Your task to perform on an android device: Add jbl charge 4 to the cart on ebay.com, then select checkout. Image 0: 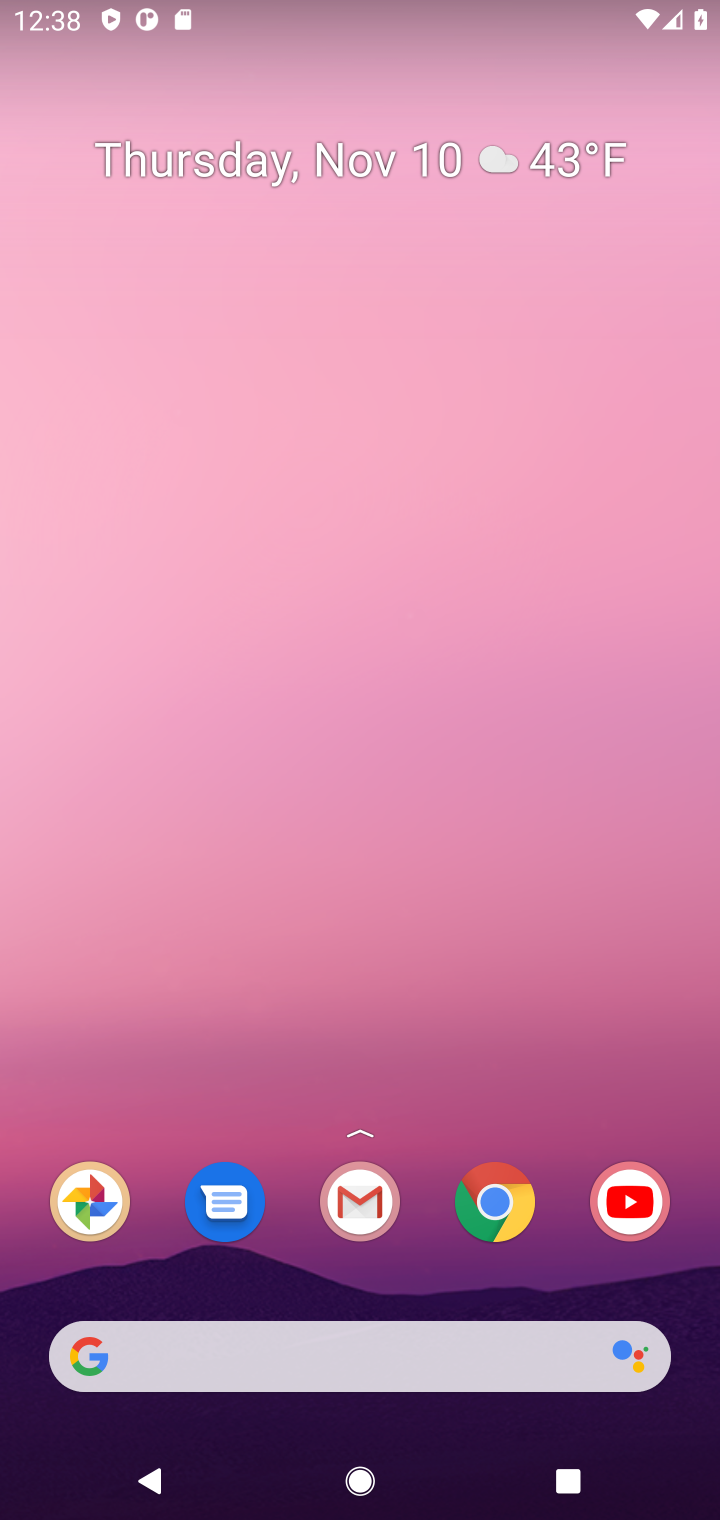
Step 0: click (516, 1219)
Your task to perform on an android device: Add jbl charge 4 to the cart on ebay.com, then select checkout. Image 1: 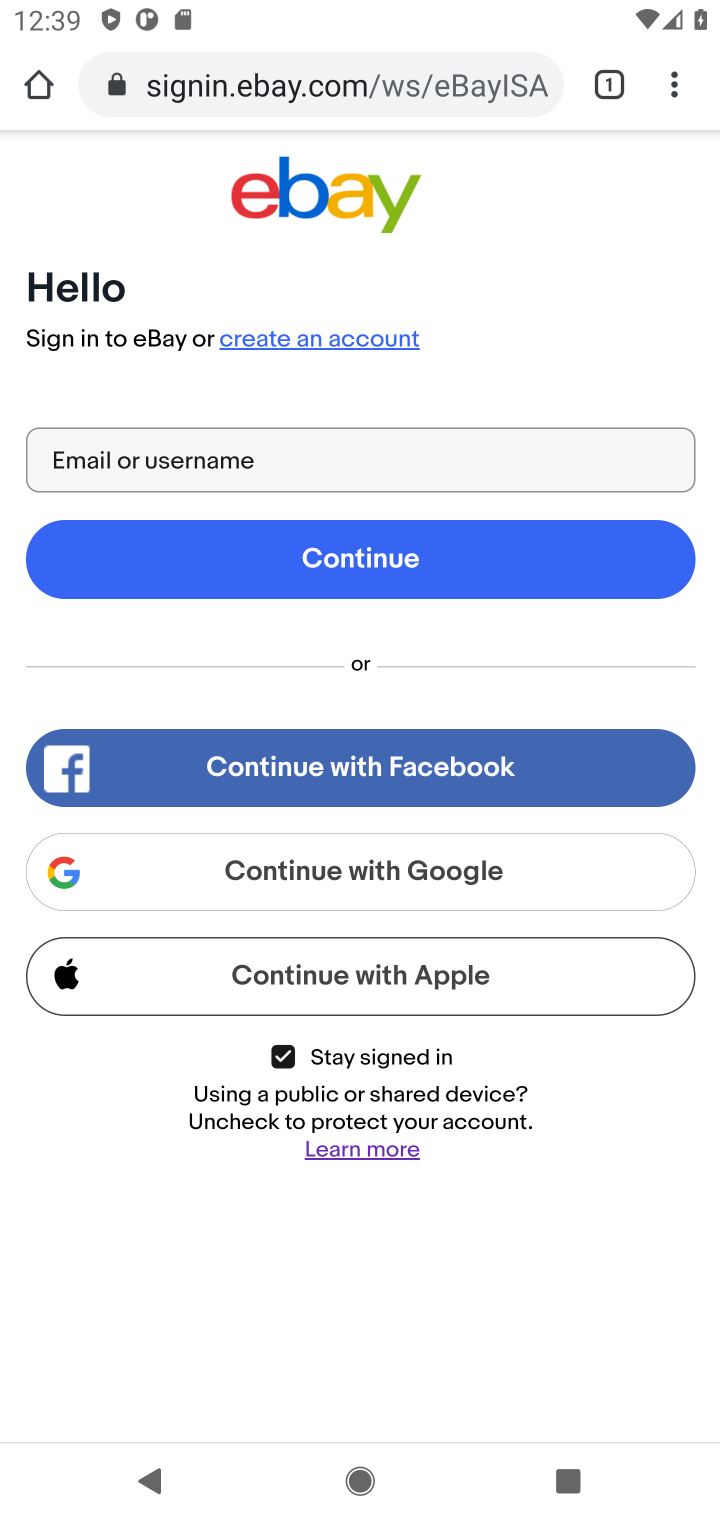
Step 1: press back button
Your task to perform on an android device: Add jbl charge 4 to the cart on ebay.com, then select checkout. Image 2: 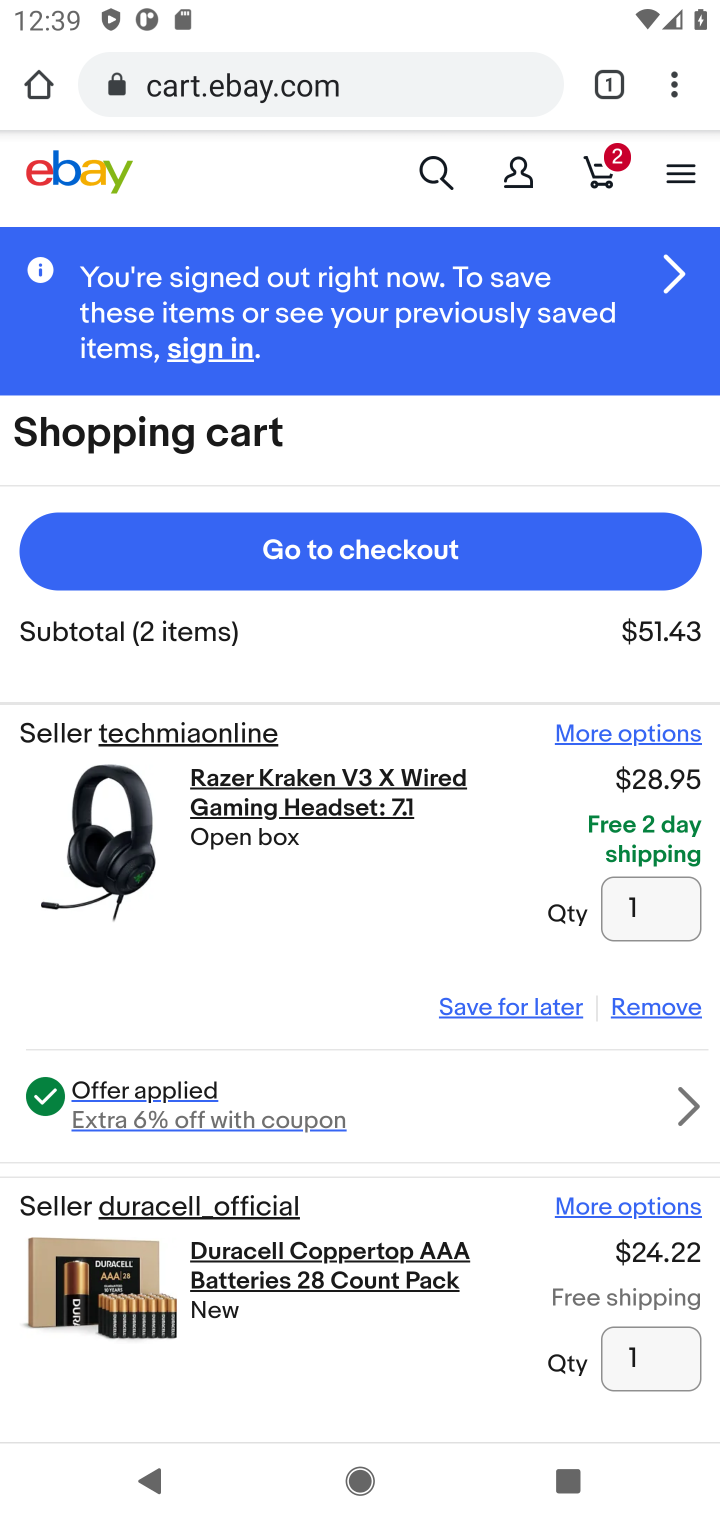
Step 2: click (443, 166)
Your task to perform on an android device: Add jbl charge 4 to the cart on ebay.com, then select checkout. Image 3: 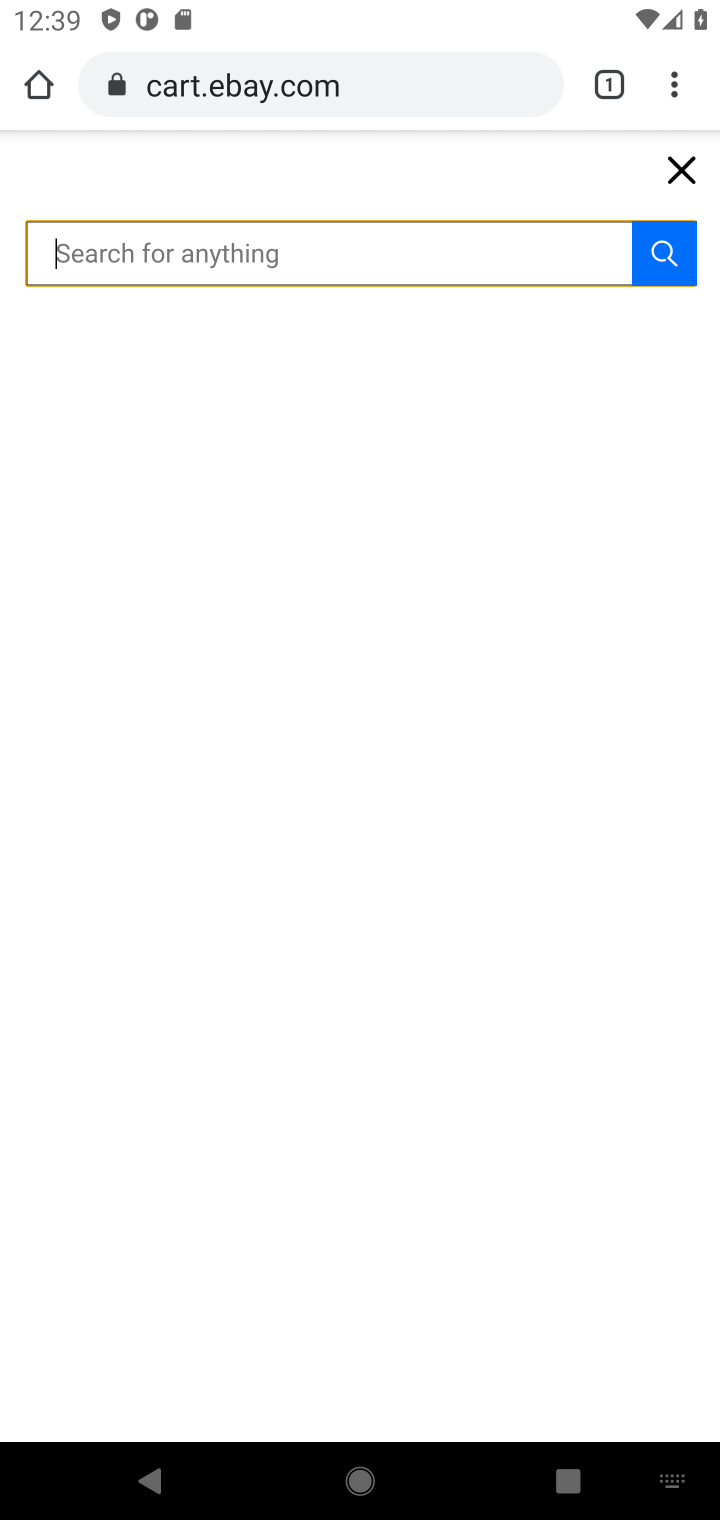
Step 3: type "jbl charge 4"
Your task to perform on an android device: Add jbl charge 4 to the cart on ebay.com, then select checkout. Image 4: 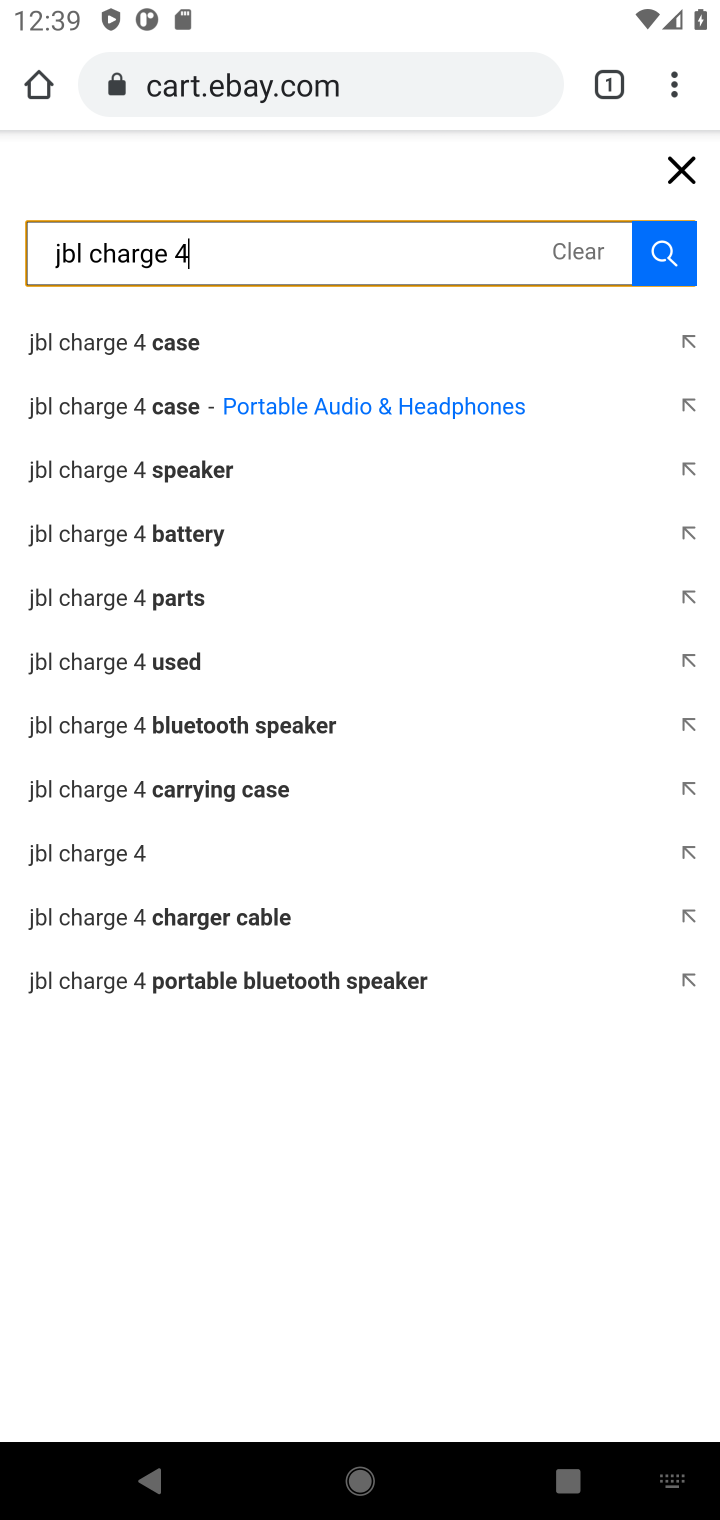
Step 4: click (118, 858)
Your task to perform on an android device: Add jbl charge 4 to the cart on ebay.com, then select checkout. Image 5: 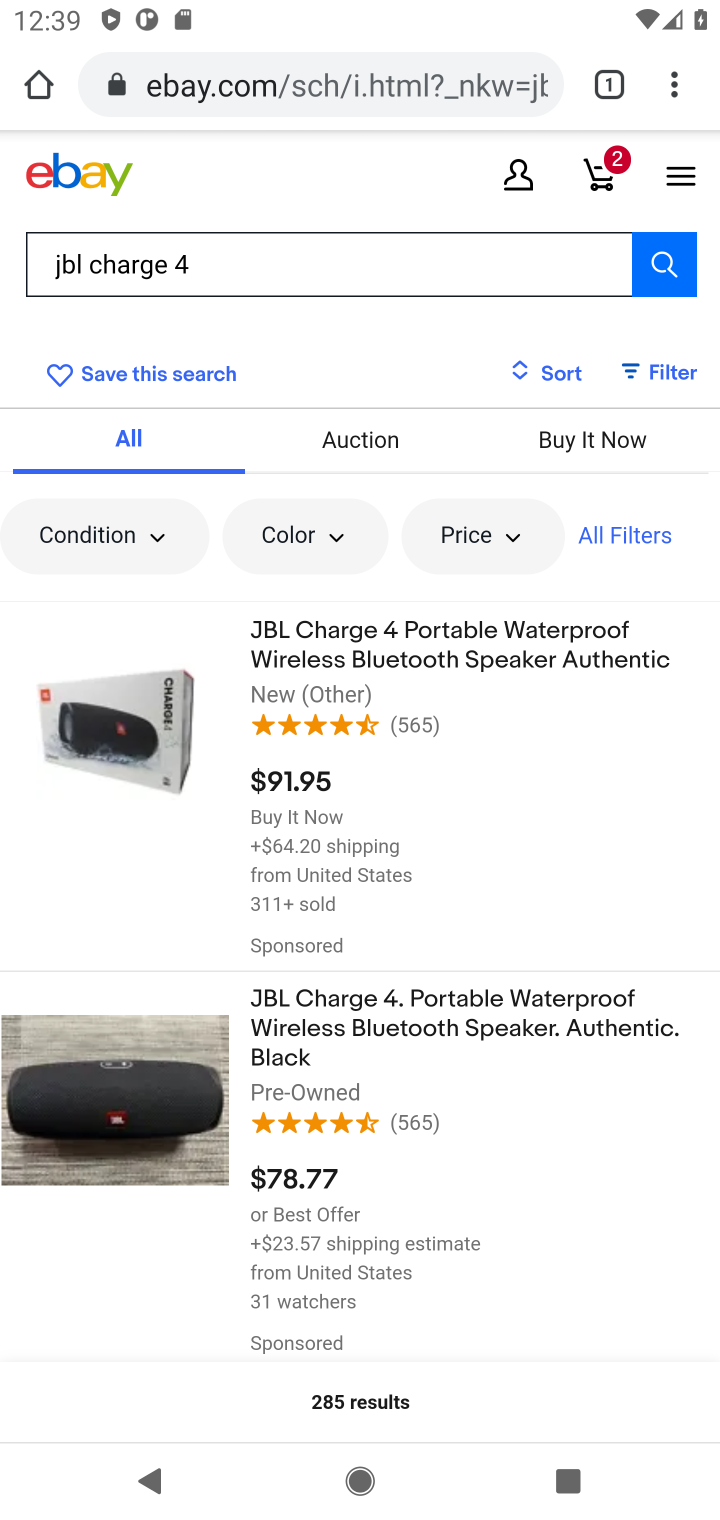
Step 5: click (102, 733)
Your task to perform on an android device: Add jbl charge 4 to the cart on ebay.com, then select checkout. Image 6: 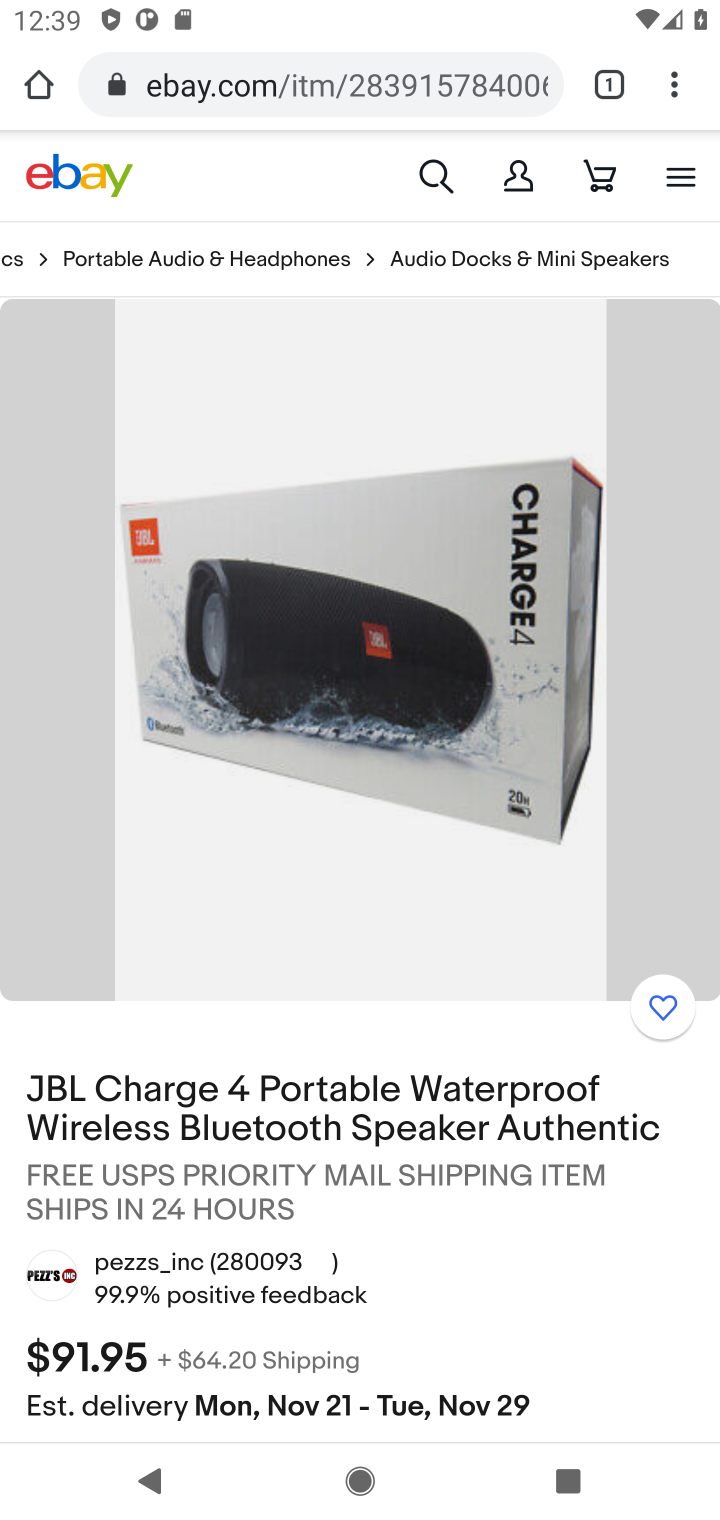
Step 6: drag from (507, 1282) to (475, 610)
Your task to perform on an android device: Add jbl charge 4 to the cart on ebay.com, then select checkout. Image 7: 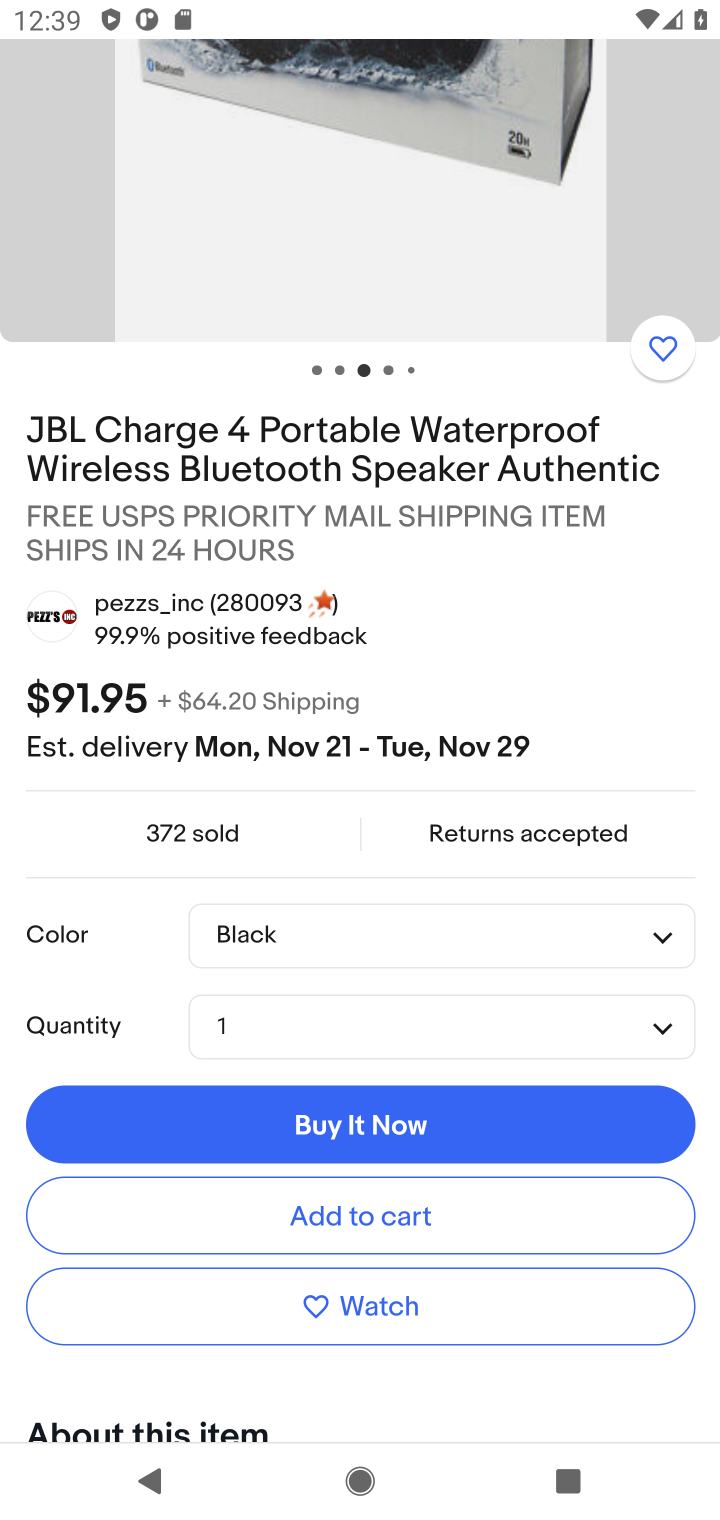
Step 7: drag from (592, 1245) to (608, 771)
Your task to perform on an android device: Add jbl charge 4 to the cart on ebay.com, then select checkout. Image 8: 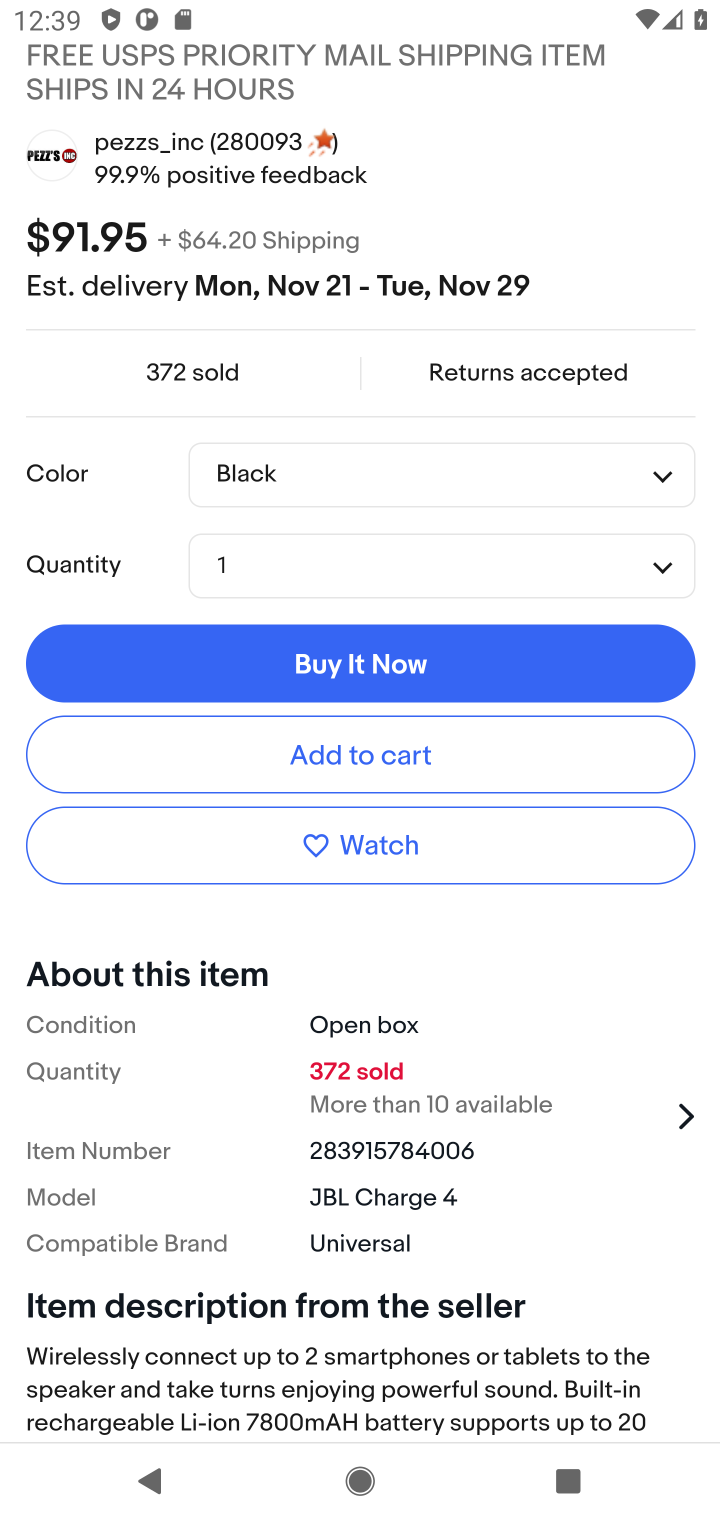
Step 8: click (401, 759)
Your task to perform on an android device: Add jbl charge 4 to the cart on ebay.com, then select checkout. Image 9: 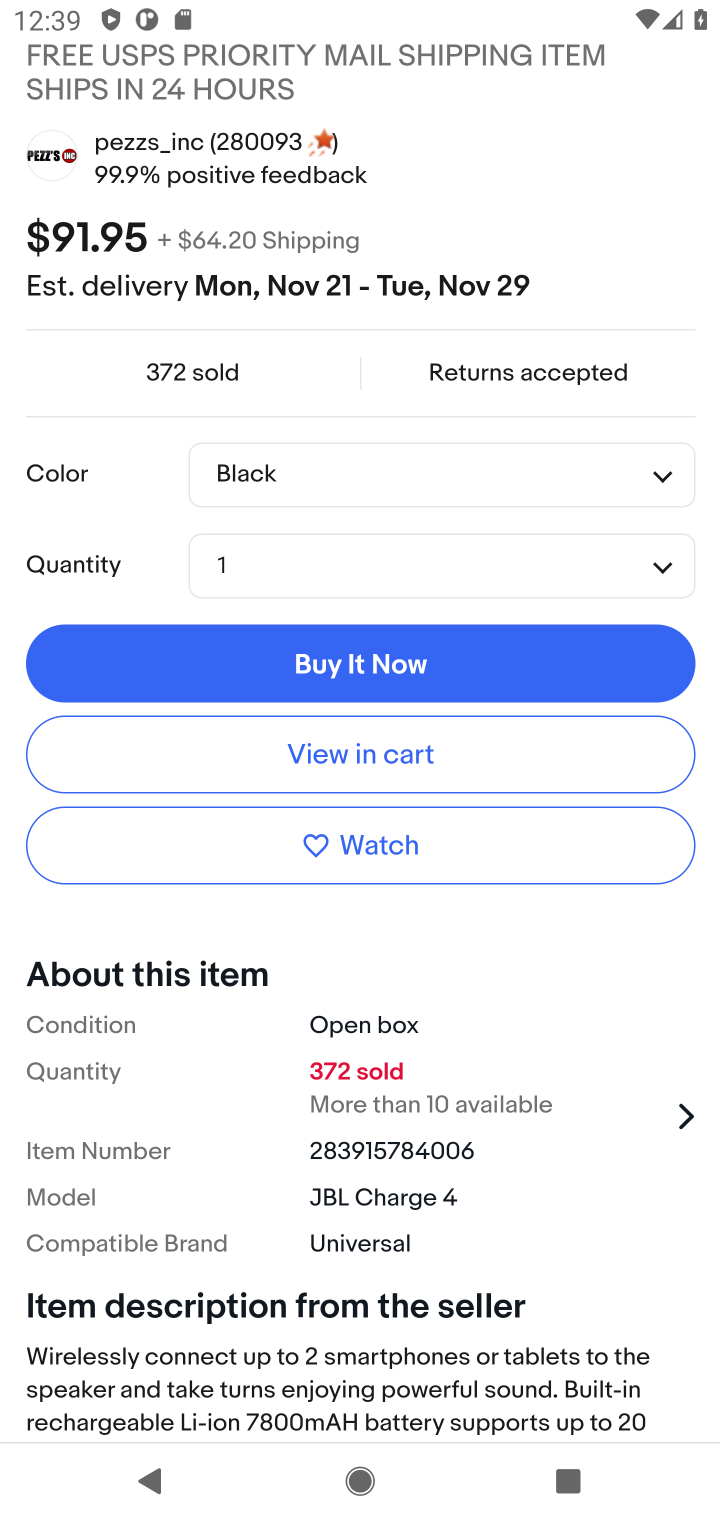
Step 9: click (401, 759)
Your task to perform on an android device: Add jbl charge 4 to the cart on ebay.com, then select checkout. Image 10: 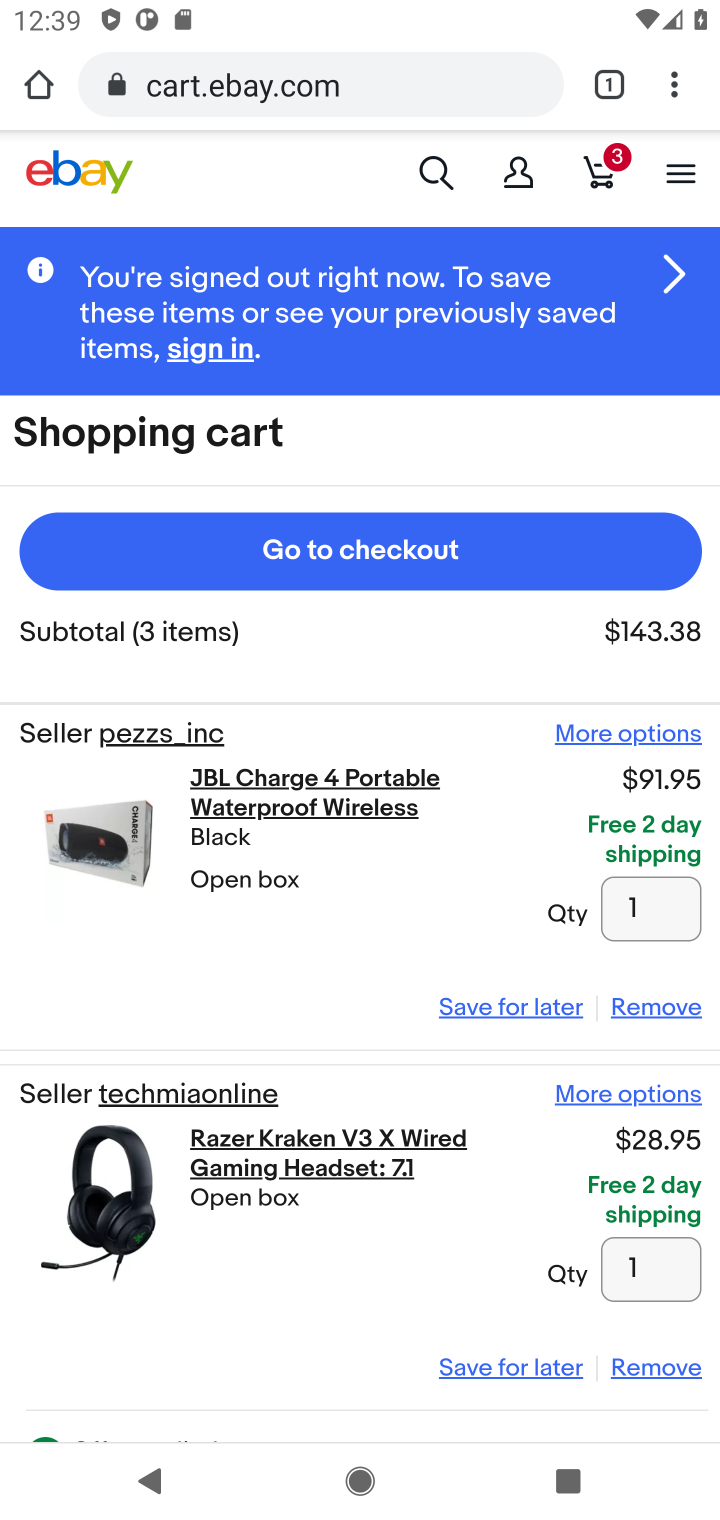
Step 10: click (387, 542)
Your task to perform on an android device: Add jbl charge 4 to the cart on ebay.com, then select checkout. Image 11: 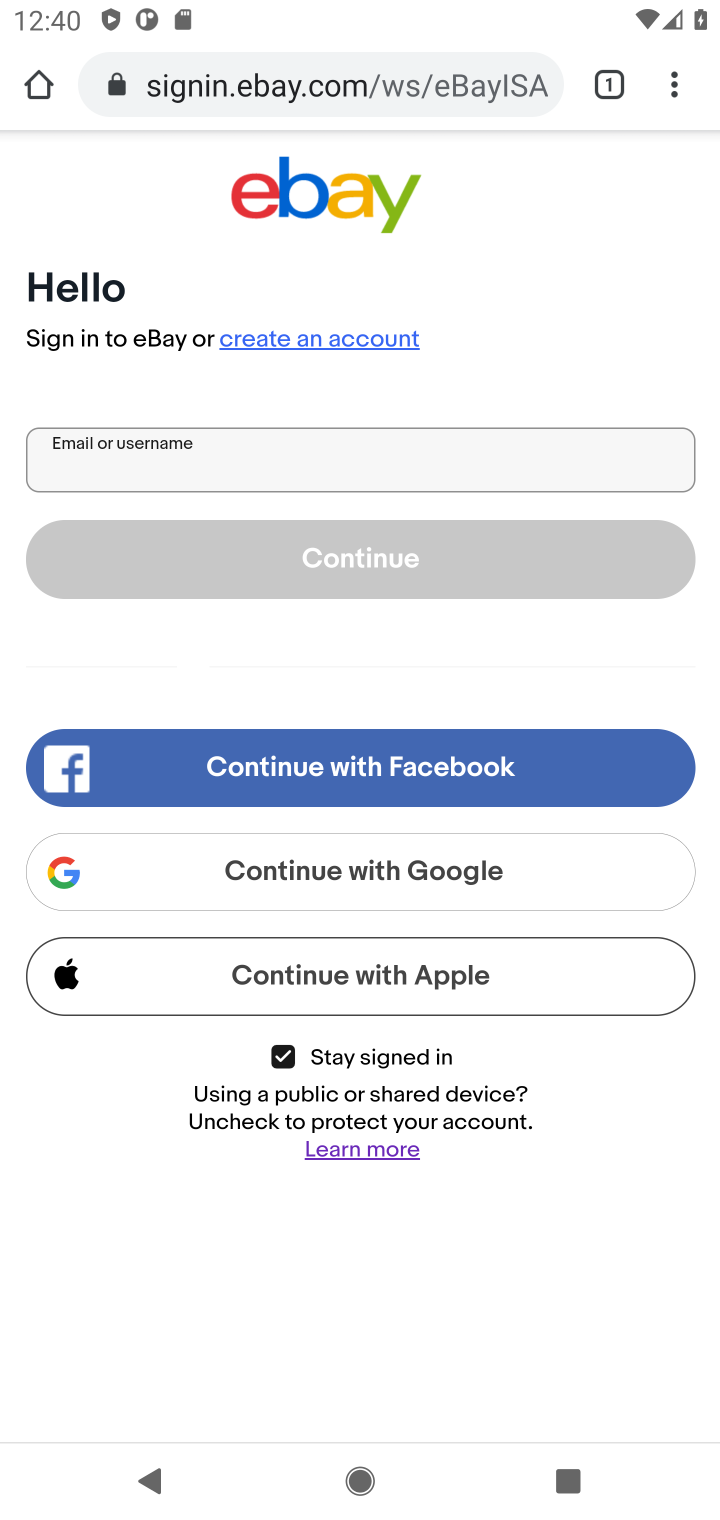
Step 11: task complete